Your task to perform on an android device: See recent photos Image 0: 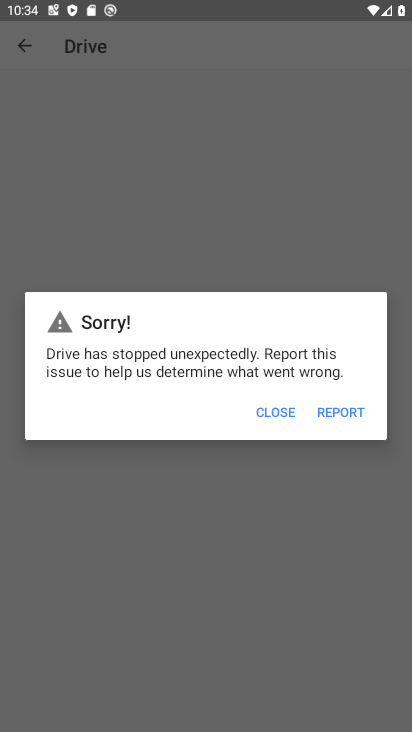
Step 0: press home button
Your task to perform on an android device: See recent photos Image 1: 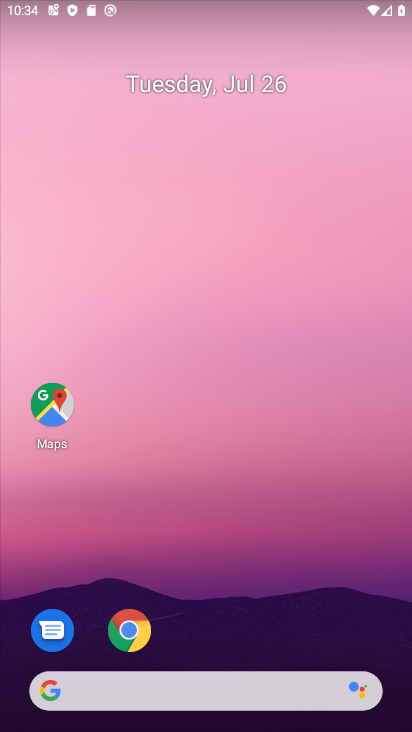
Step 1: drag from (199, 620) to (232, 143)
Your task to perform on an android device: See recent photos Image 2: 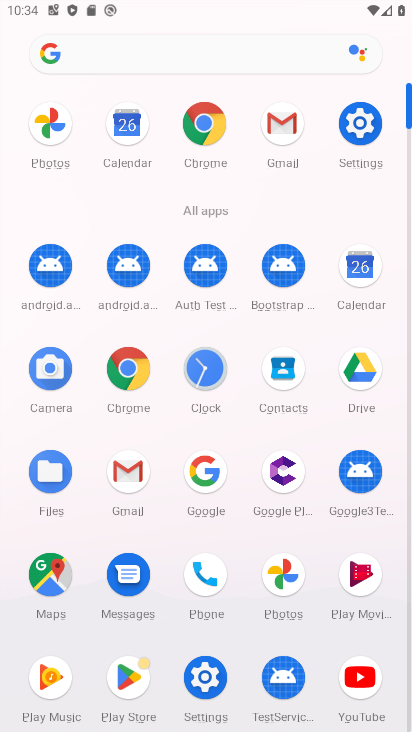
Step 2: click (294, 573)
Your task to perform on an android device: See recent photos Image 3: 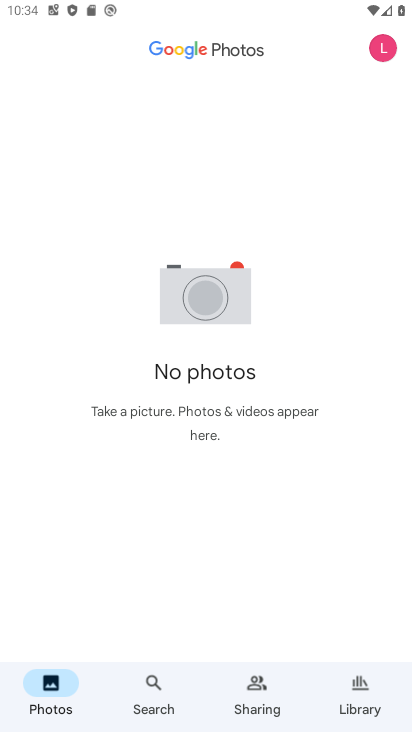
Step 3: task complete